Your task to perform on an android device: Go to battery settings Image 0: 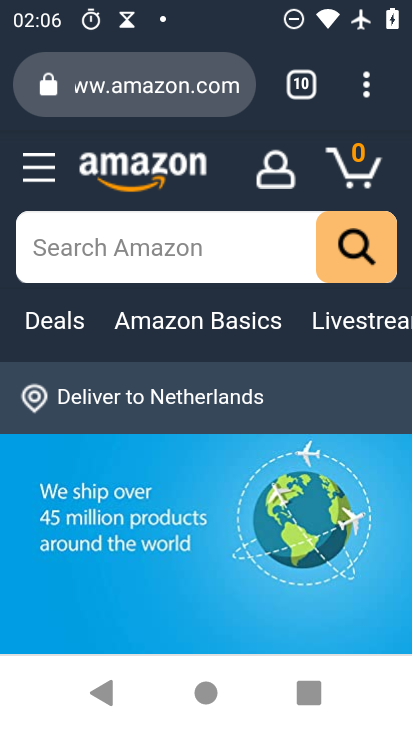
Step 0: press home button
Your task to perform on an android device: Go to battery settings Image 1: 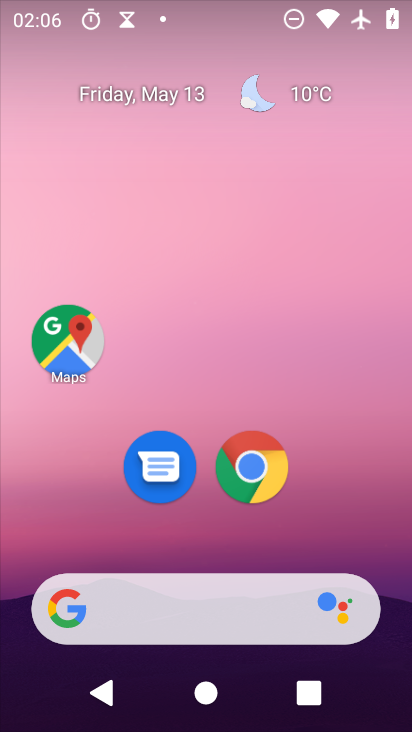
Step 1: drag from (325, 508) to (243, 65)
Your task to perform on an android device: Go to battery settings Image 2: 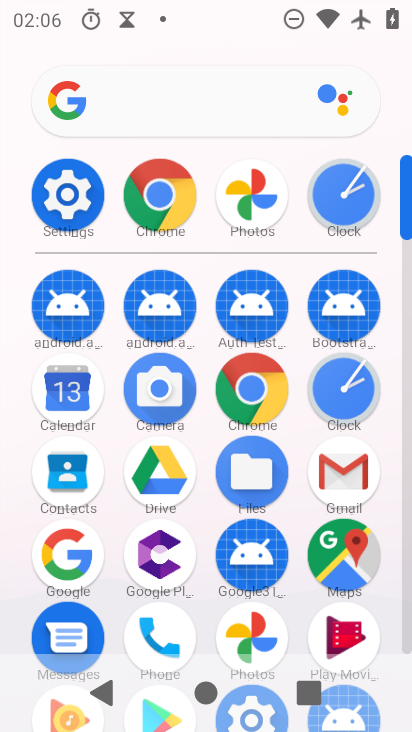
Step 2: click (62, 201)
Your task to perform on an android device: Go to battery settings Image 3: 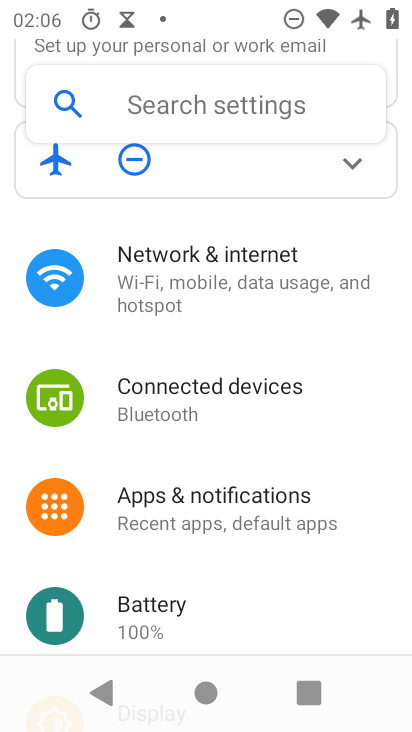
Step 3: click (219, 609)
Your task to perform on an android device: Go to battery settings Image 4: 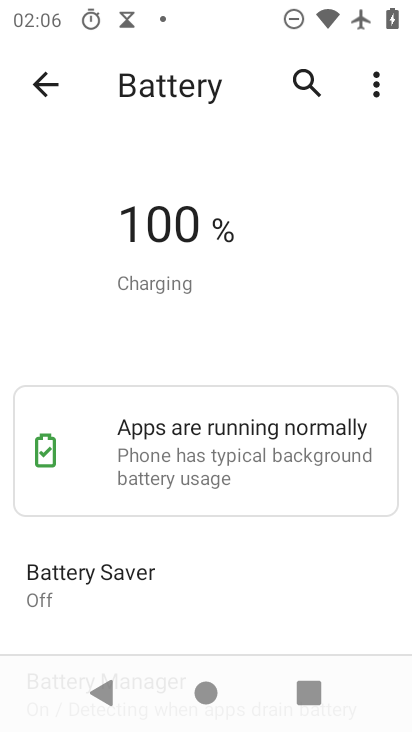
Step 4: task complete